Your task to perform on an android device: turn off data saver in the chrome app Image 0: 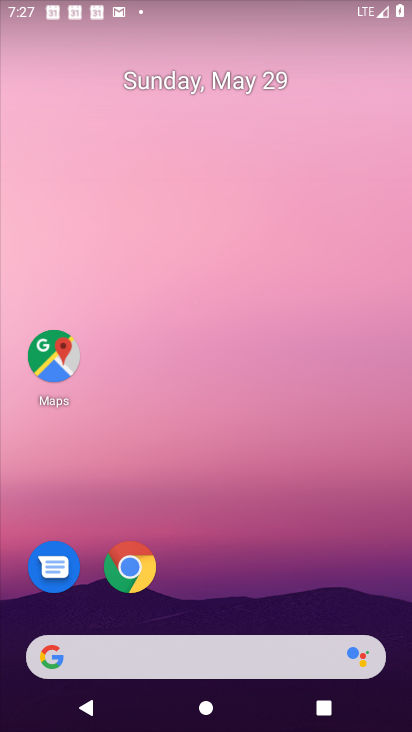
Step 0: drag from (243, 576) to (212, 288)
Your task to perform on an android device: turn off data saver in the chrome app Image 1: 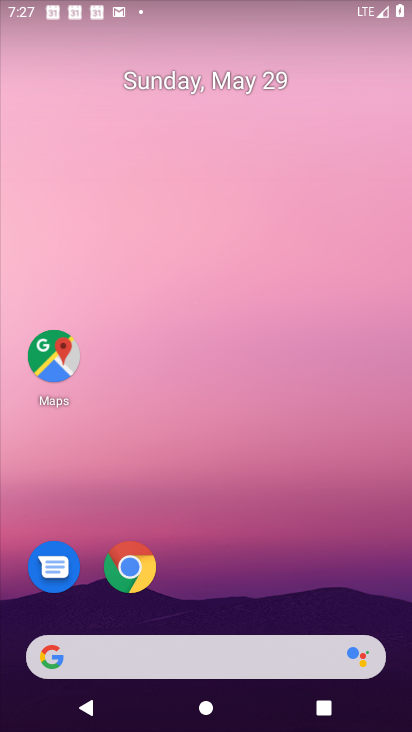
Step 1: drag from (184, 568) to (207, 222)
Your task to perform on an android device: turn off data saver in the chrome app Image 2: 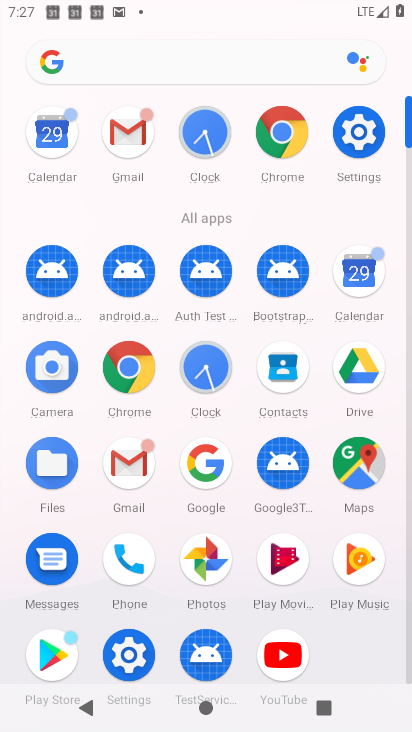
Step 2: click (283, 119)
Your task to perform on an android device: turn off data saver in the chrome app Image 3: 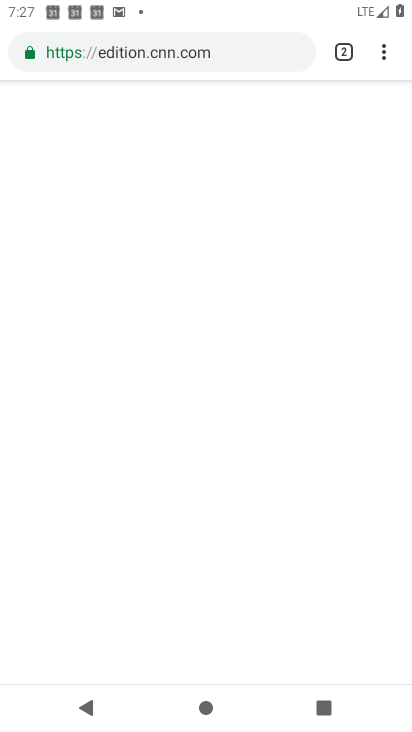
Step 3: click (382, 41)
Your task to perform on an android device: turn off data saver in the chrome app Image 4: 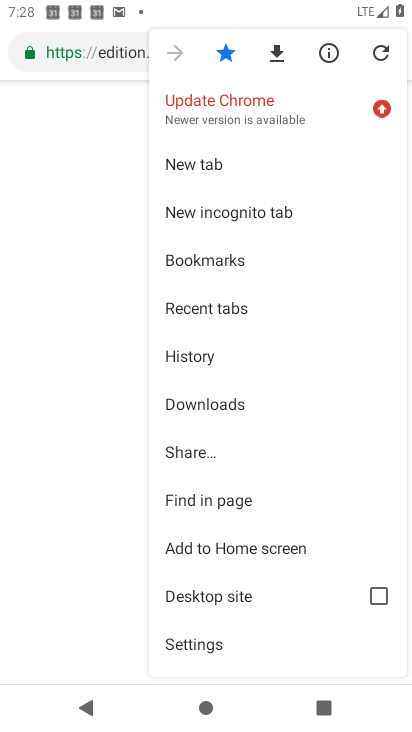
Step 4: drag from (226, 554) to (251, 310)
Your task to perform on an android device: turn off data saver in the chrome app Image 5: 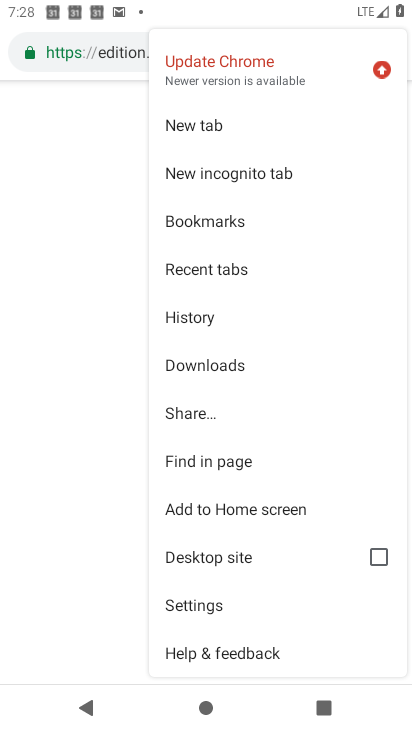
Step 5: click (209, 603)
Your task to perform on an android device: turn off data saver in the chrome app Image 6: 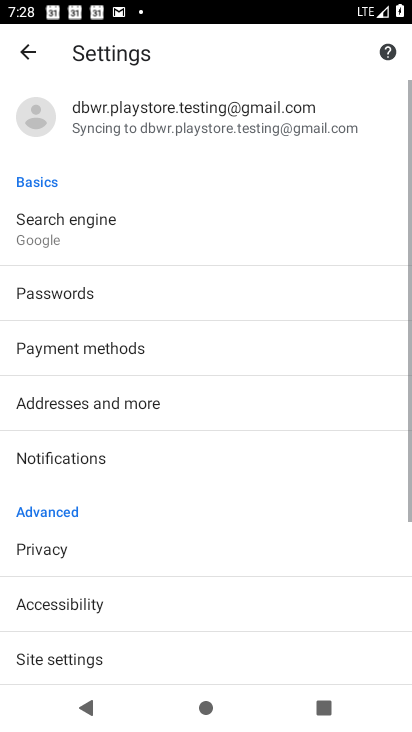
Step 6: drag from (179, 560) to (226, 231)
Your task to perform on an android device: turn off data saver in the chrome app Image 7: 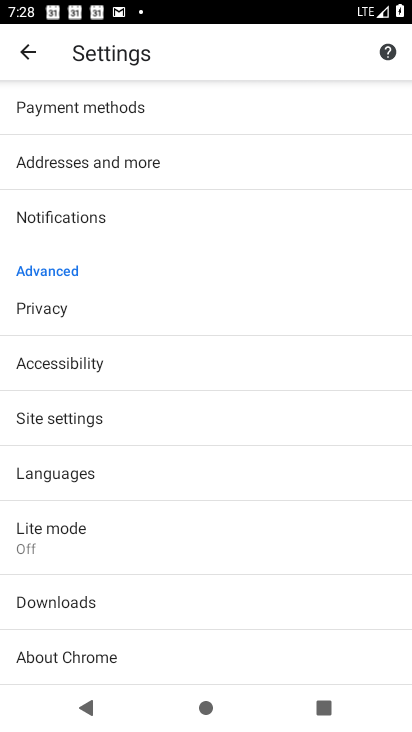
Step 7: click (47, 547)
Your task to perform on an android device: turn off data saver in the chrome app Image 8: 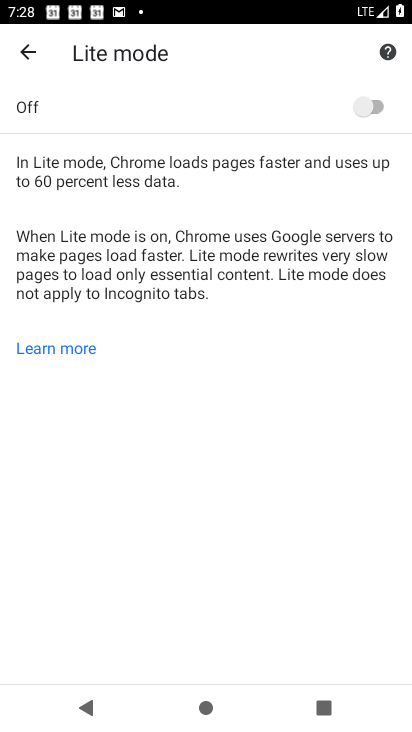
Step 8: task complete